Your task to perform on an android device: Go to Reddit.com Image 0: 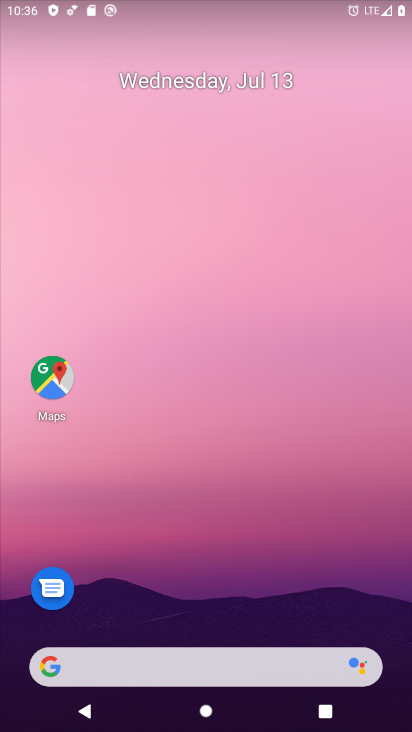
Step 0: click (273, 669)
Your task to perform on an android device: Go to Reddit.com Image 1: 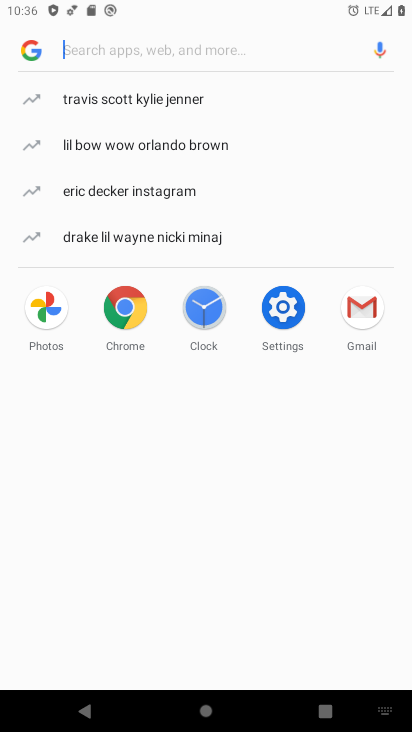
Step 1: type "reddit.com"
Your task to perform on an android device: Go to Reddit.com Image 2: 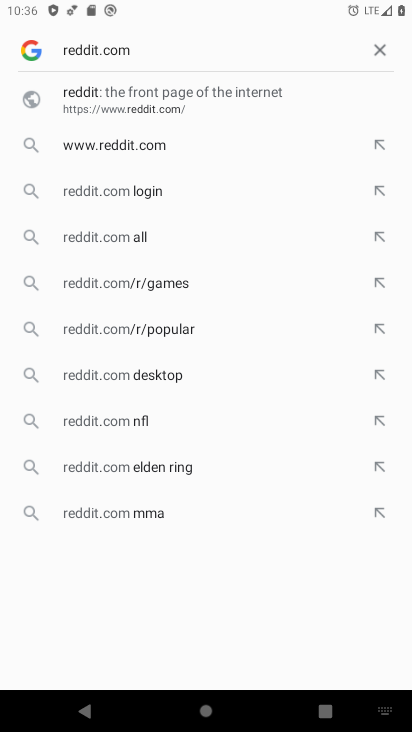
Step 2: click (189, 98)
Your task to perform on an android device: Go to Reddit.com Image 3: 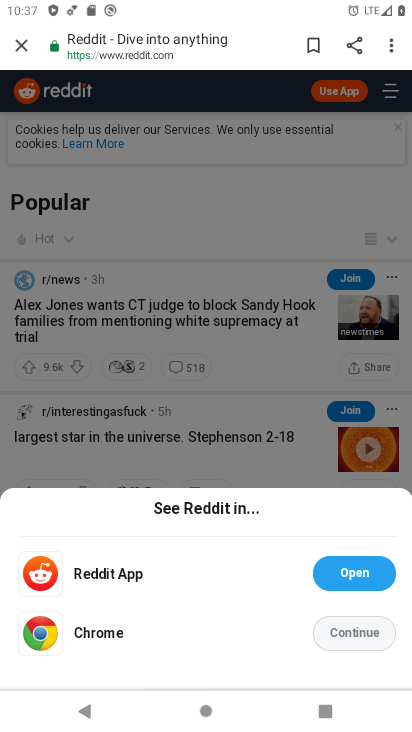
Step 3: task complete